Your task to perform on an android device: Open the map Image 0: 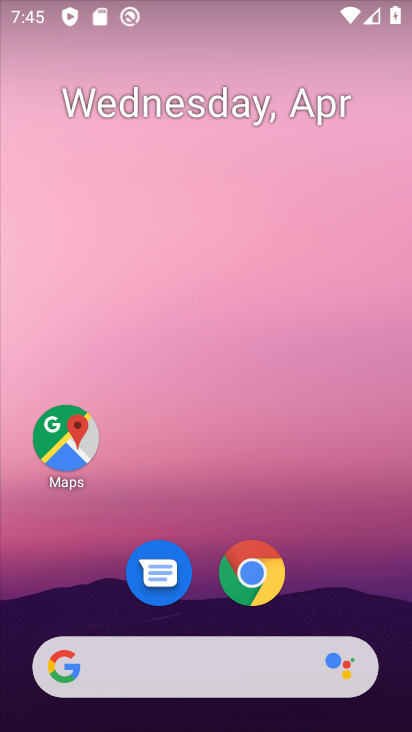
Step 0: click (77, 428)
Your task to perform on an android device: Open the map Image 1: 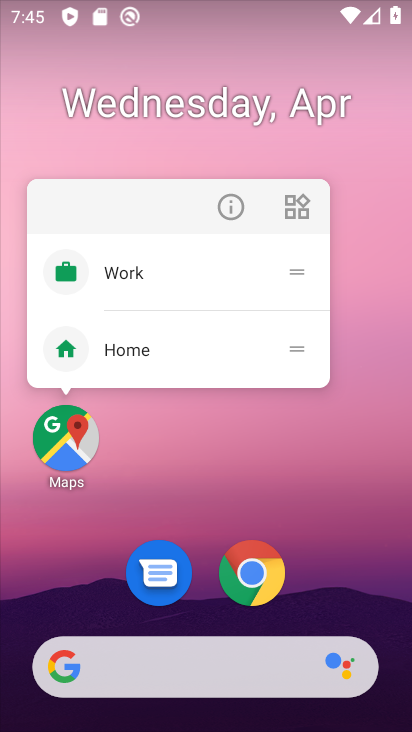
Step 1: click (233, 203)
Your task to perform on an android device: Open the map Image 2: 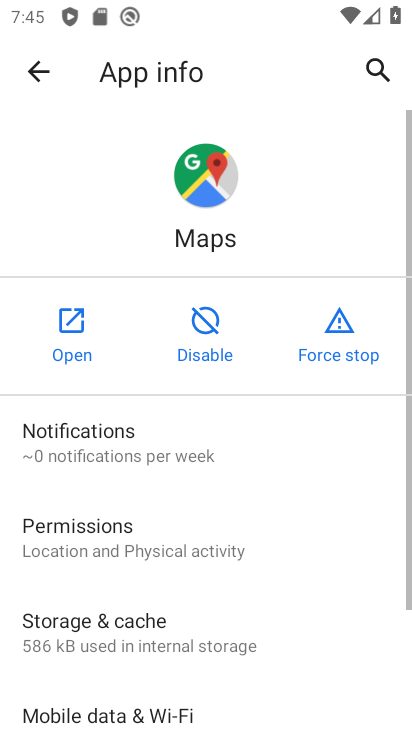
Step 2: click (59, 330)
Your task to perform on an android device: Open the map Image 3: 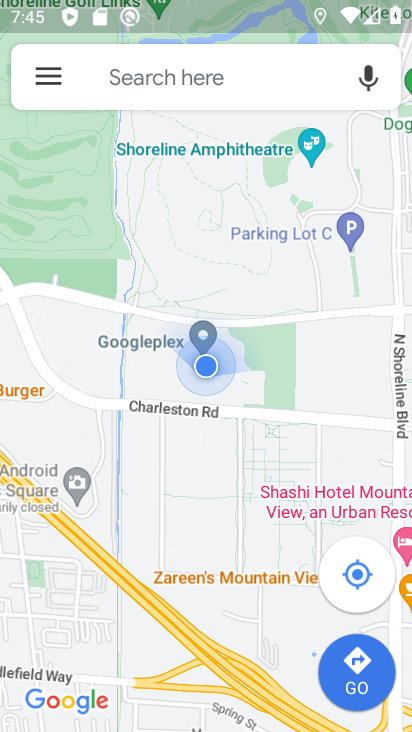
Step 3: task complete